Your task to perform on an android device: open app "Nova Launcher" Image 0: 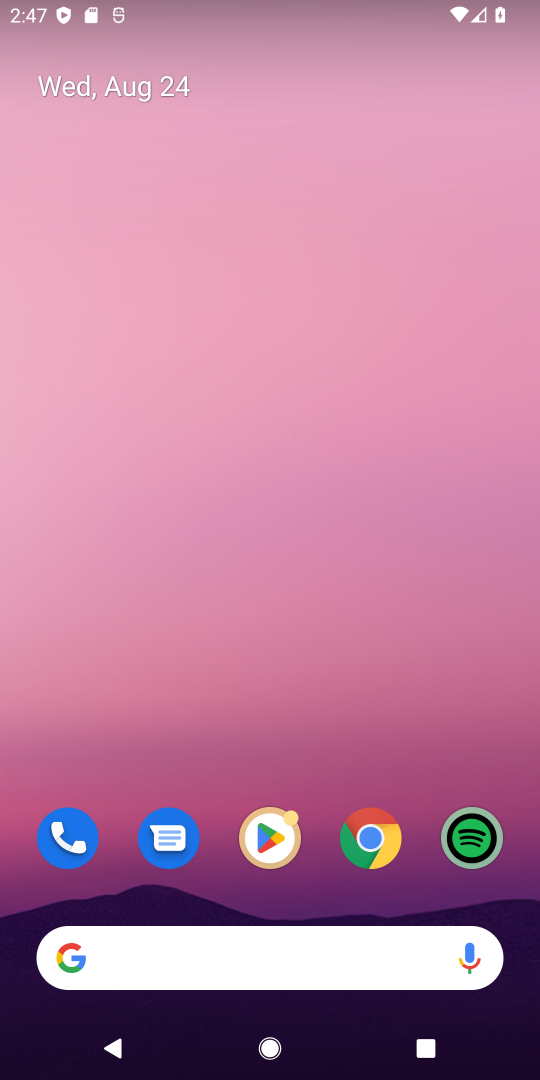
Step 0: press home button
Your task to perform on an android device: open app "Nova Launcher" Image 1: 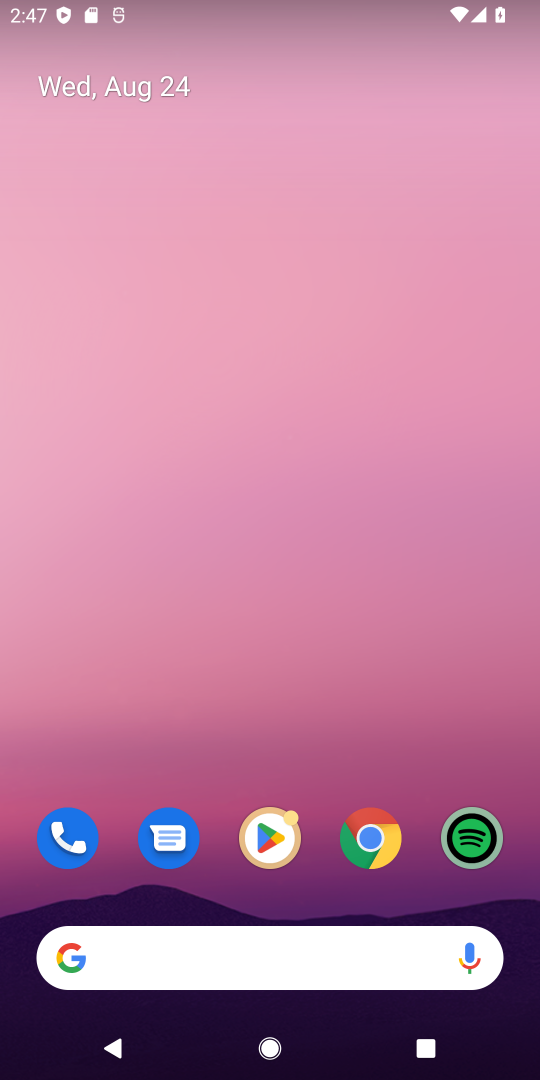
Step 1: drag from (449, 723) to (453, 209)
Your task to perform on an android device: open app "Nova Launcher" Image 2: 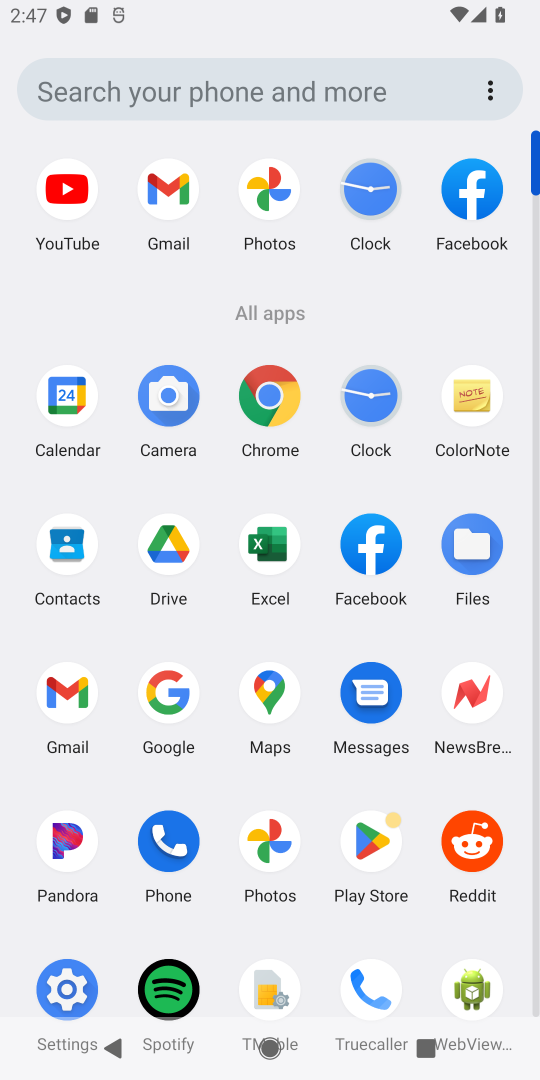
Step 2: click (370, 843)
Your task to perform on an android device: open app "Nova Launcher" Image 3: 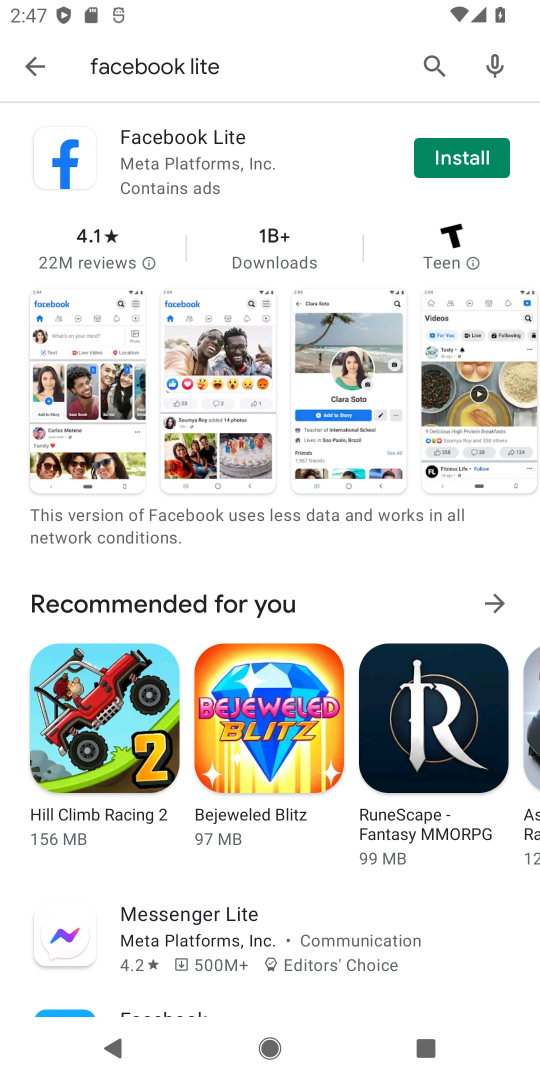
Step 3: press back button
Your task to perform on an android device: open app "Nova Launcher" Image 4: 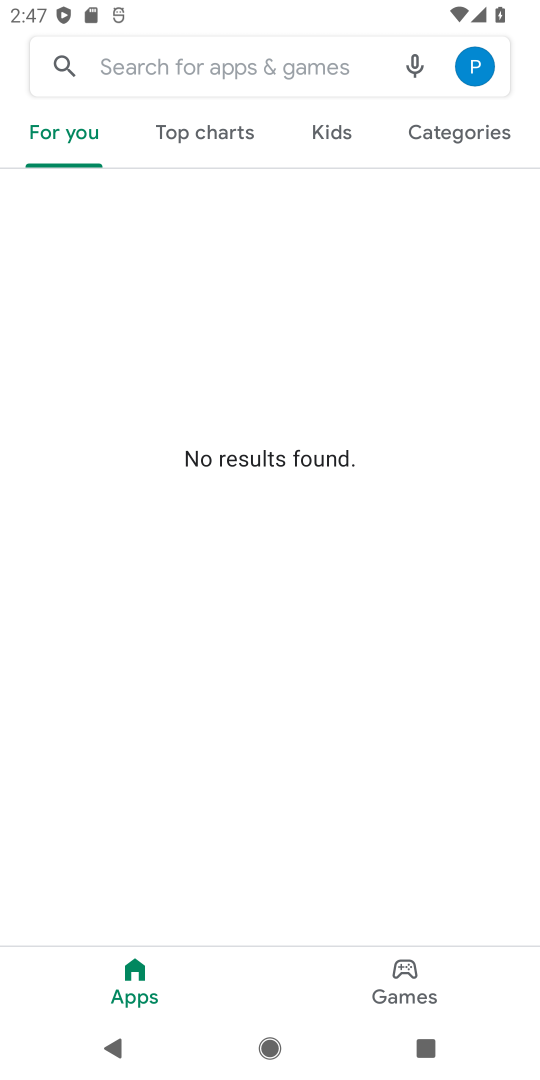
Step 4: click (268, 59)
Your task to perform on an android device: open app "Nova Launcher" Image 5: 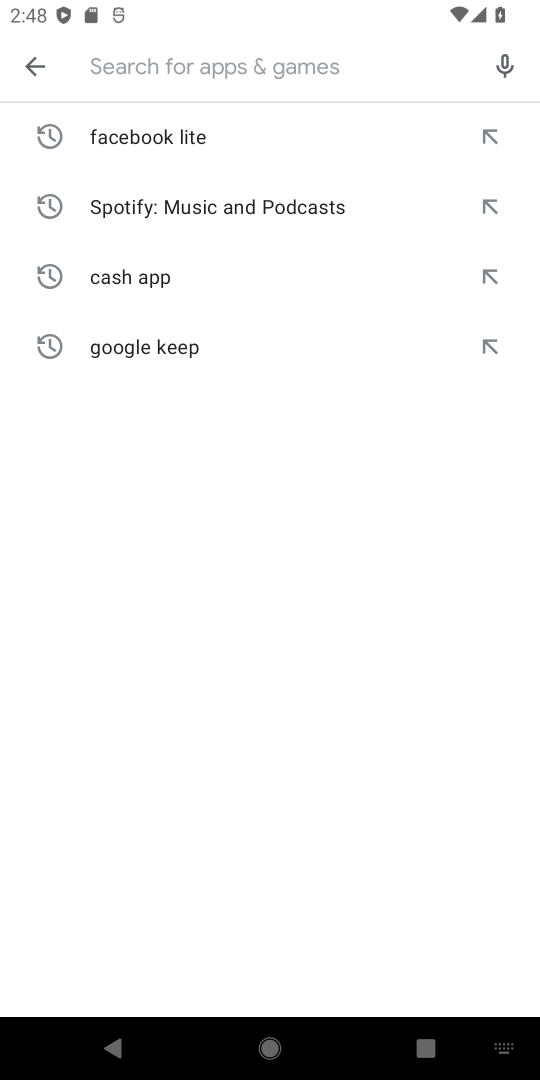
Step 5: press enter
Your task to perform on an android device: open app "Nova Launcher" Image 6: 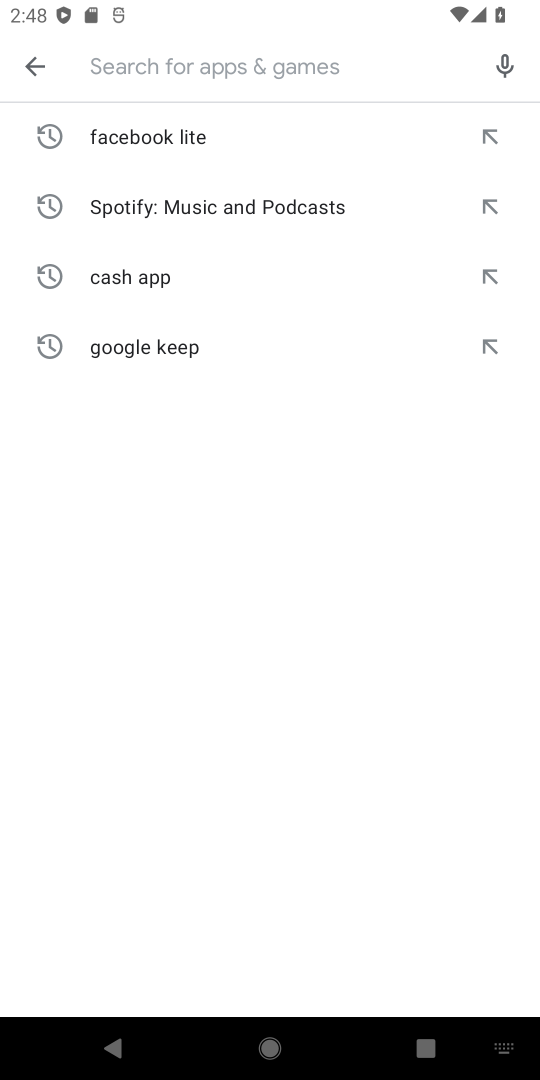
Step 6: type "nova launcher"
Your task to perform on an android device: open app "Nova Launcher" Image 7: 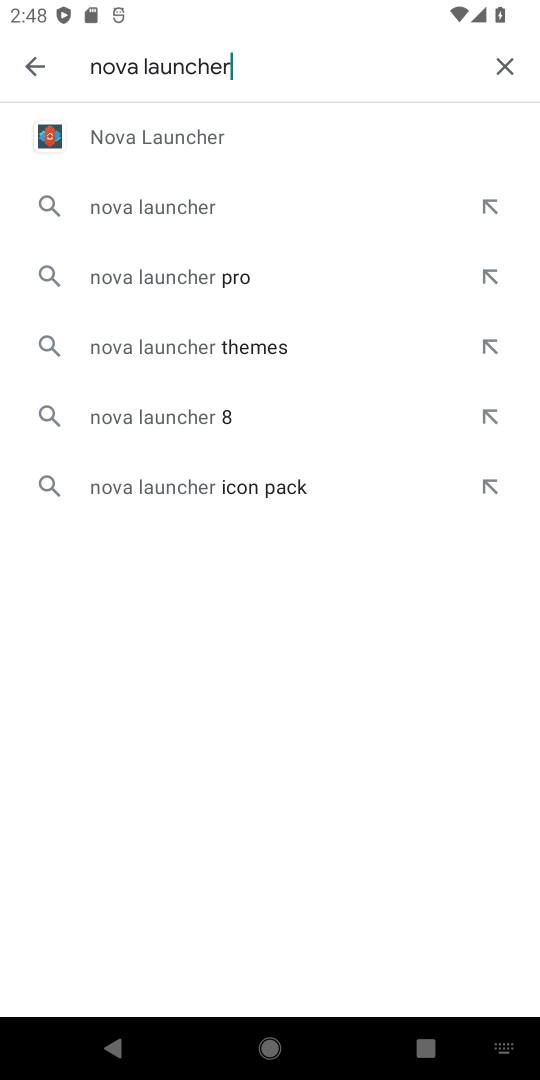
Step 7: click (230, 129)
Your task to perform on an android device: open app "Nova Launcher" Image 8: 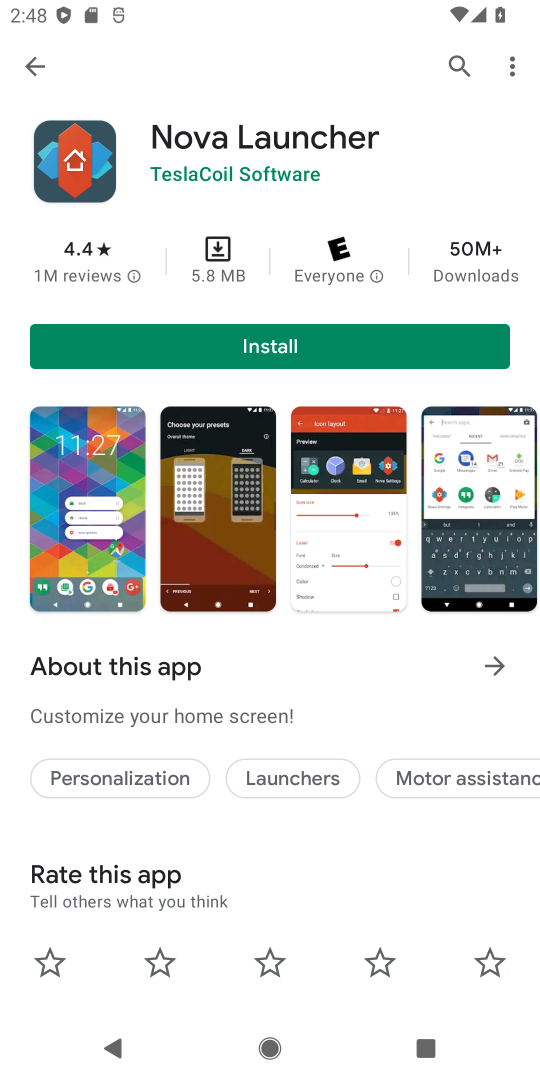
Step 8: task complete